Your task to perform on an android device: all mails in gmail Image 0: 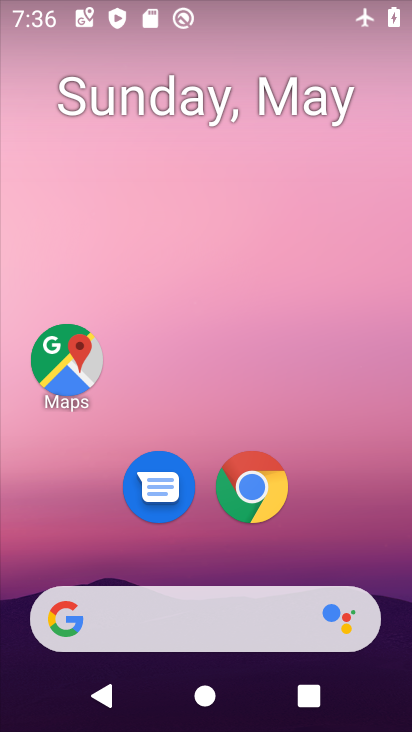
Step 0: drag from (367, 572) to (365, 281)
Your task to perform on an android device: all mails in gmail Image 1: 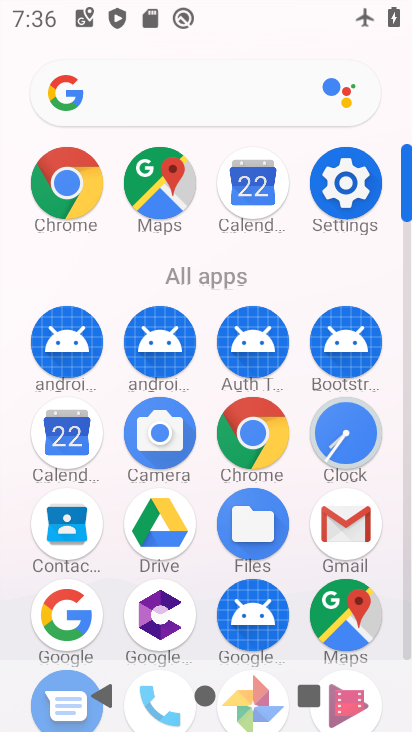
Step 1: click (349, 540)
Your task to perform on an android device: all mails in gmail Image 2: 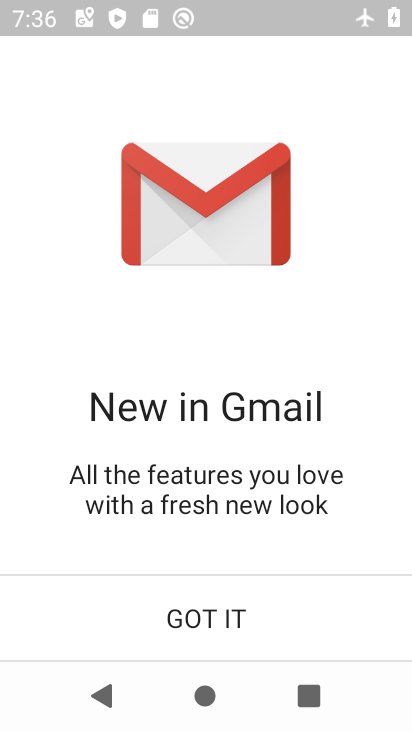
Step 2: click (288, 606)
Your task to perform on an android device: all mails in gmail Image 3: 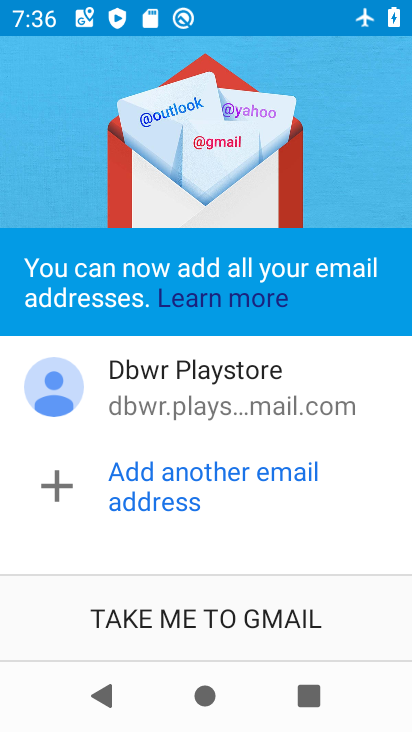
Step 3: click (328, 593)
Your task to perform on an android device: all mails in gmail Image 4: 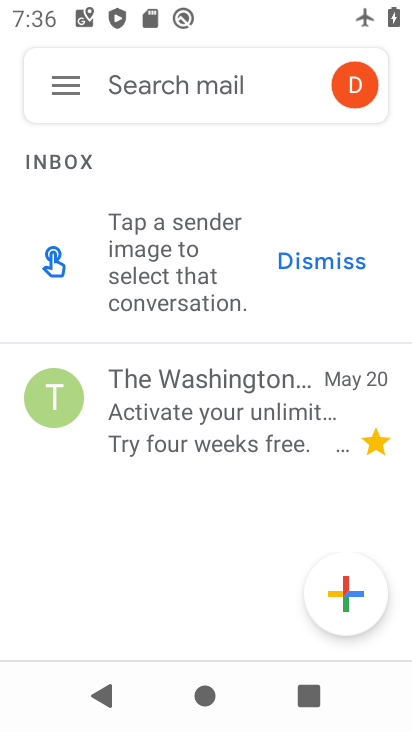
Step 4: click (77, 115)
Your task to perform on an android device: all mails in gmail Image 5: 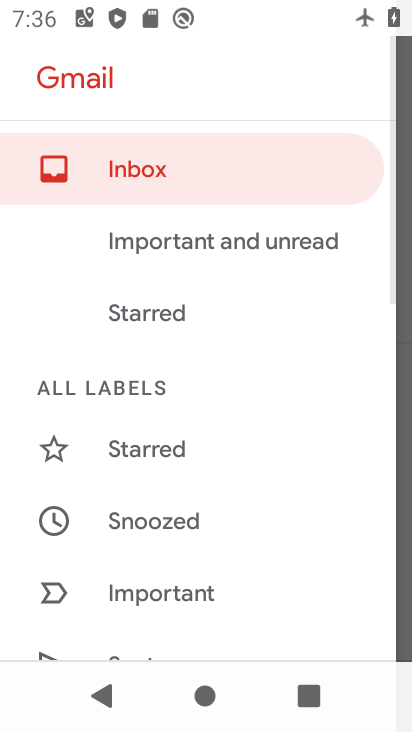
Step 5: drag from (310, 510) to (315, 434)
Your task to perform on an android device: all mails in gmail Image 6: 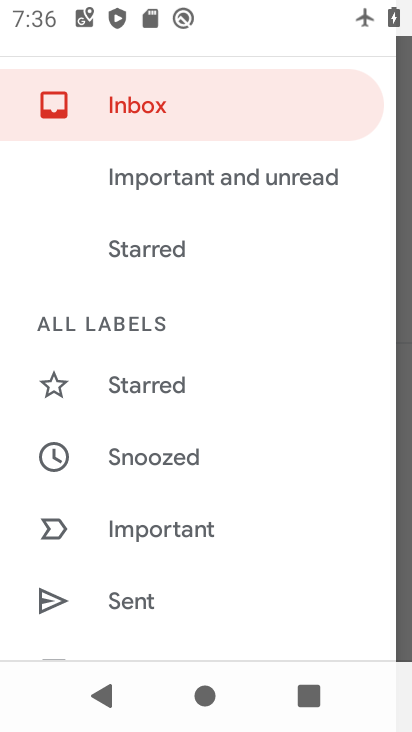
Step 6: drag from (324, 513) to (326, 442)
Your task to perform on an android device: all mails in gmail Image 7: 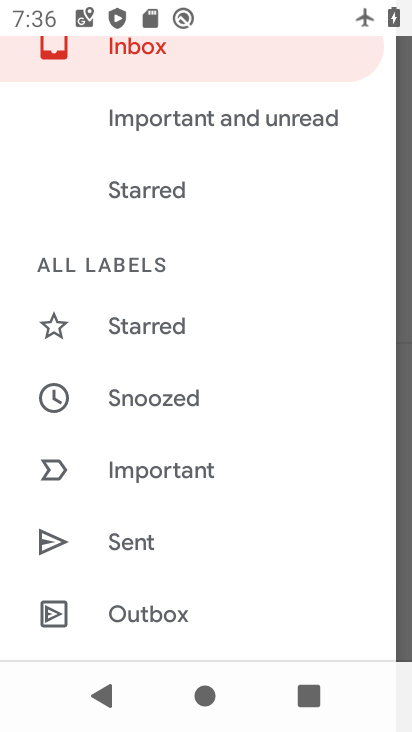
Step 7: drag from (323, 531) to (322, 442)
Your task to perform on an android device: all mails in gmail Image 8: 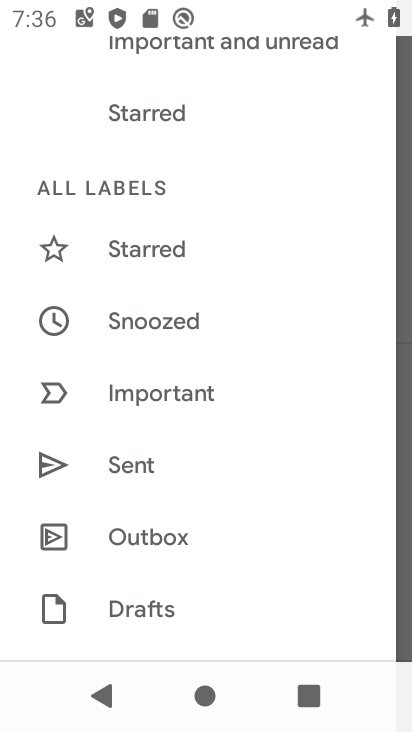
Step 8: drag from (320, 506) to (318, 457)
Your task to perform on an android device: all mails in gmail Image 9: 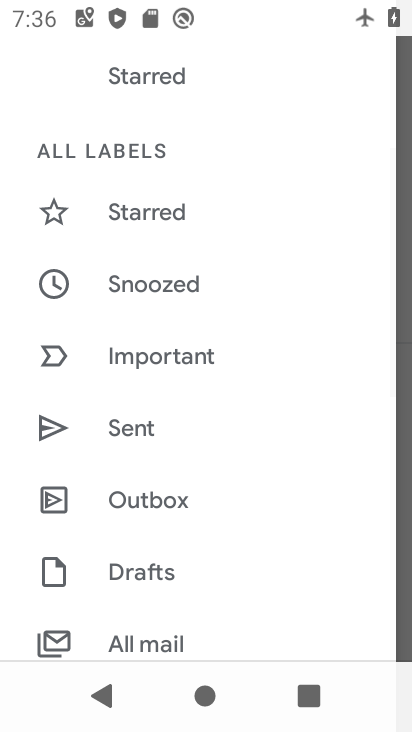
Step 9: drag from (316, 530) to (315, 463)
Your task to perform on an android device: all mails in gmail Image 10: 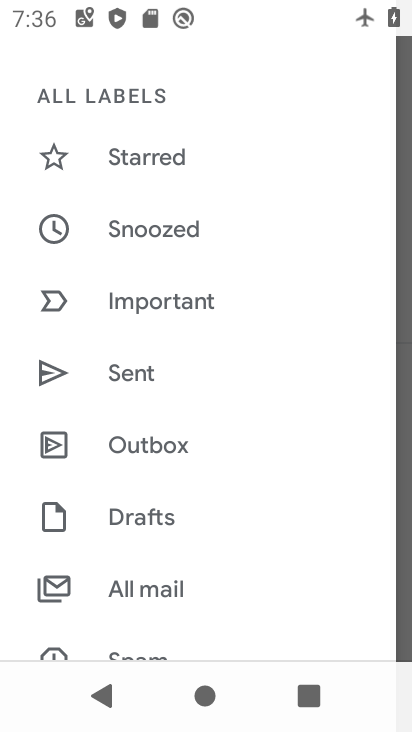
Step 10: drag from (310, 521) to (312, 463)
Your task to perform on an android device: all mails in gmail Image 11: 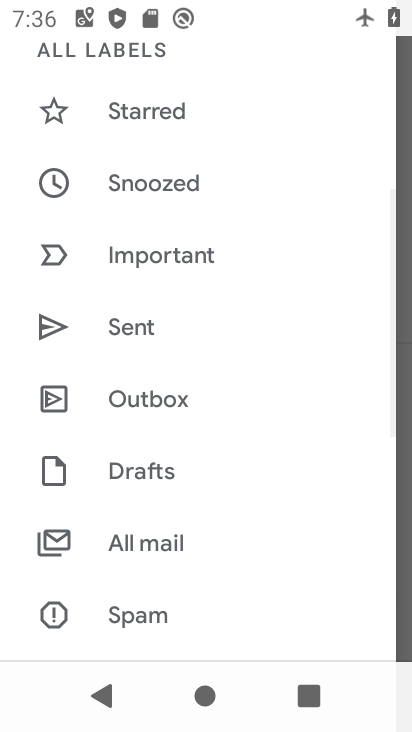
Step 11: drag from (307, 517) to (307, 475)
Your task to perform on an android device: all mails in gmail Image 12: 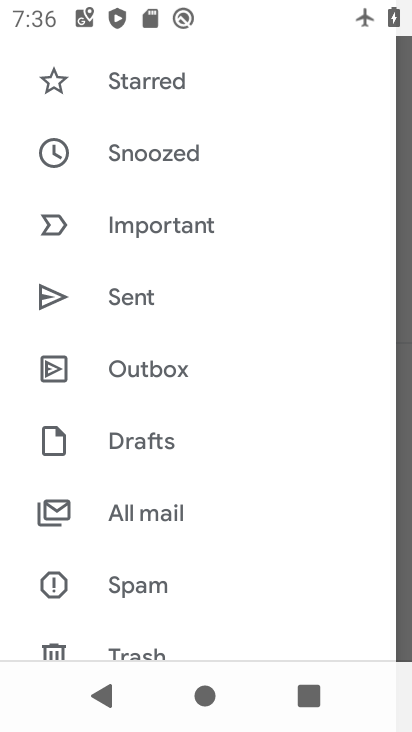
Step 12: click (306, 533)
Your task to perform on an android device: all mails in gmail Image 13: 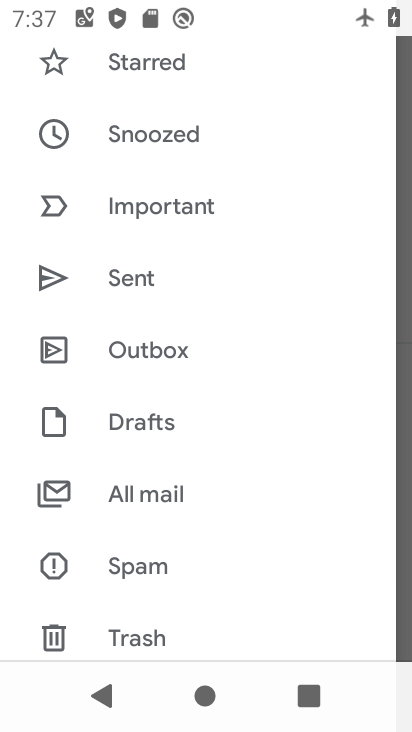
Step 13: drag from (316, 559) to (320, 500)
Your task to perform on an android device: all mails in gmail Image 14: 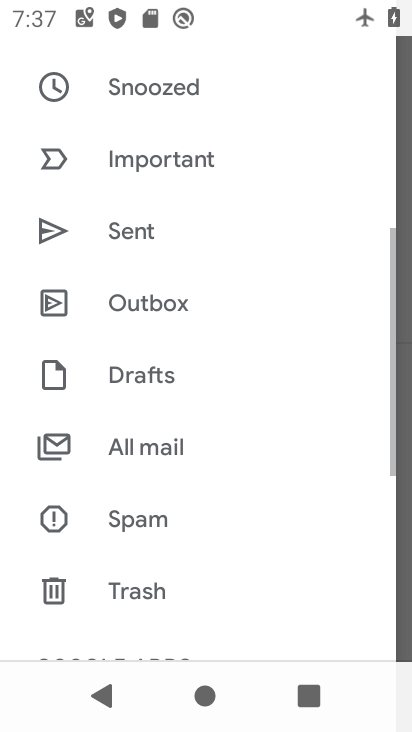
Step 14: drag from (315, 589) to (325, 529)
Your task to perform on an android device: all mails in gmail Image 15: 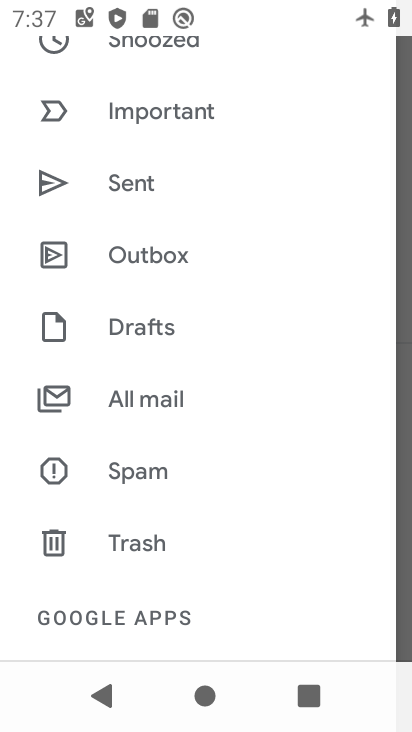
Step 15: click (192, 404)
Your task to perform on an android device: all mails in gmail Image 16: 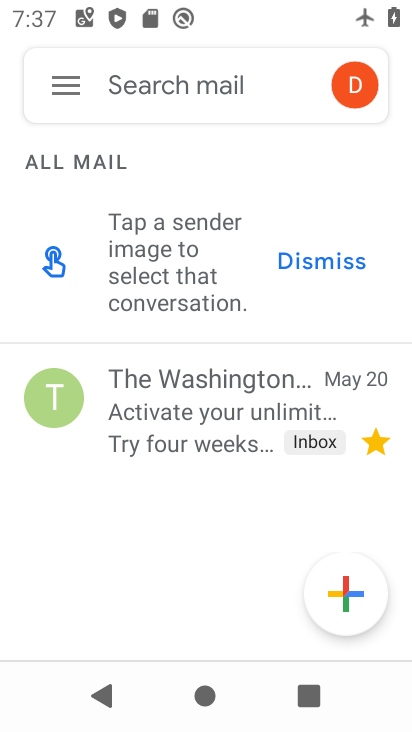
Step 16: task complete